Your task to perform on an android device: Go to display settings Image 0: 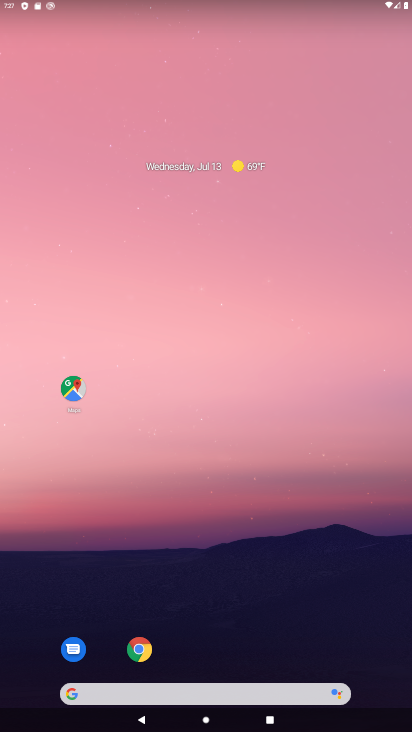
Step 0: drag from (210, 688) to (276, 133)
Your task to perform on an android device: Go to display settings Image 1: 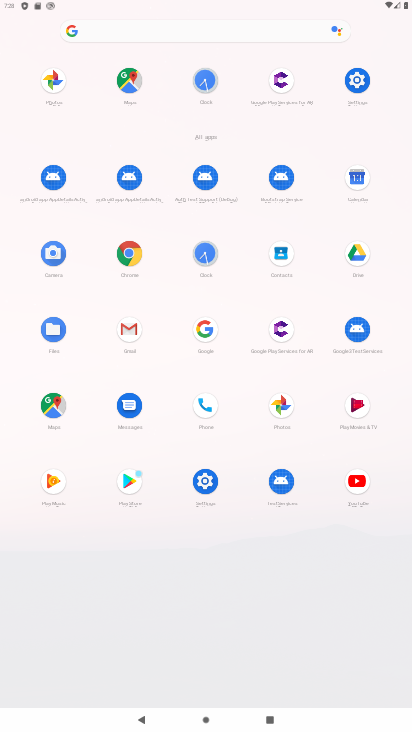
Step 1: click (357, 83)
Your task to perform on an android device: Go to display settings Image 2: 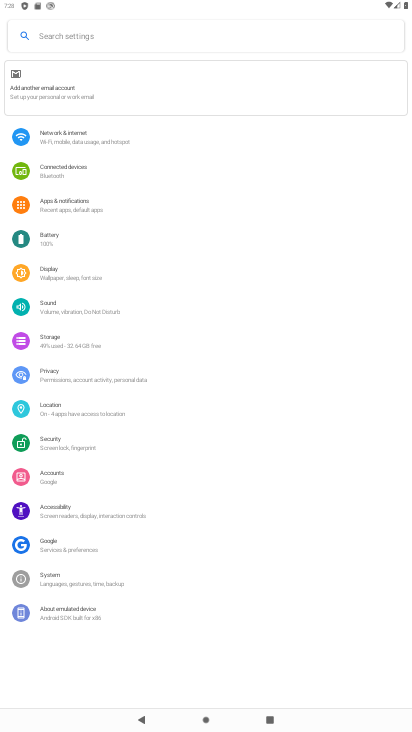
Step 2: click (60, 275)
Your task to perform on an android device: Go to display settings Image 3: 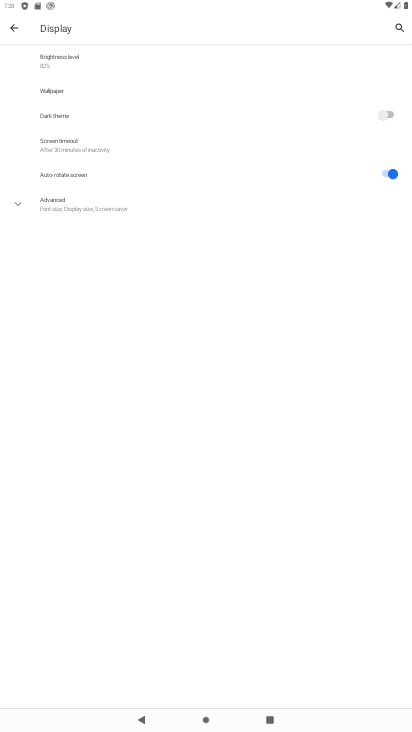
Step 3: task complete